Your task to perform on an android device: turn off notifications settings in the gmail app Image 0: 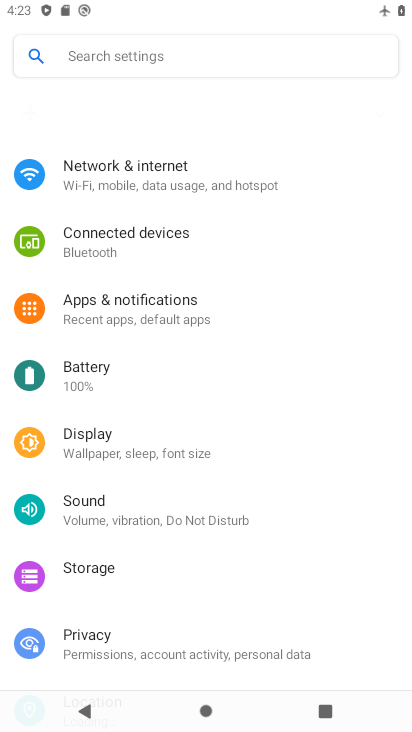
Step 0: drag from (248, 561) to (202, 300)
Your task to perform on an android device: turn off notifications settings in the gmail app Image 1: 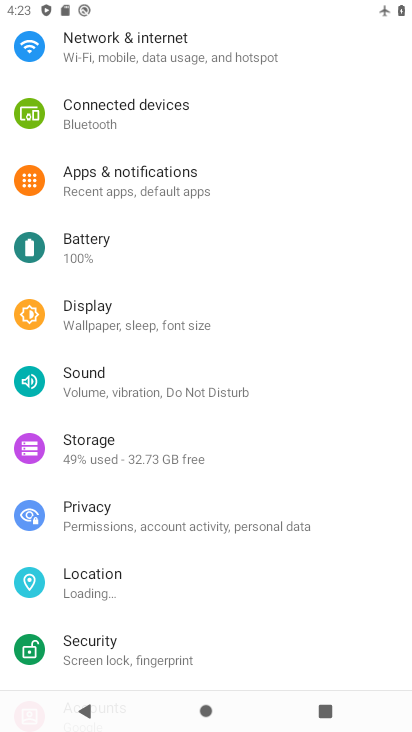
Step 1: press back button
Your task to perform on an android device: turn off notifications settings in the gmail app Image 2: 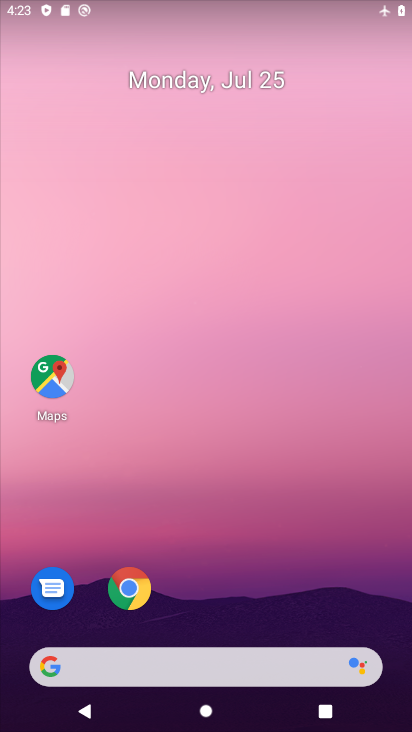
Step 2: drag from (116, 539) to (155, 166)
Your task to perform on an android device: turn off notifications settings in the gmail app Image 3: 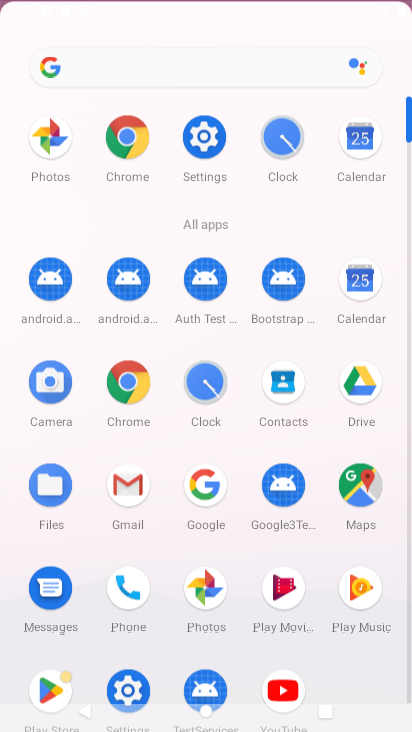
Step 3: drag from (204, 534) to (148, 98)
Your task to perform on an android device: turn off notifications settings in the gmail app Image 4: 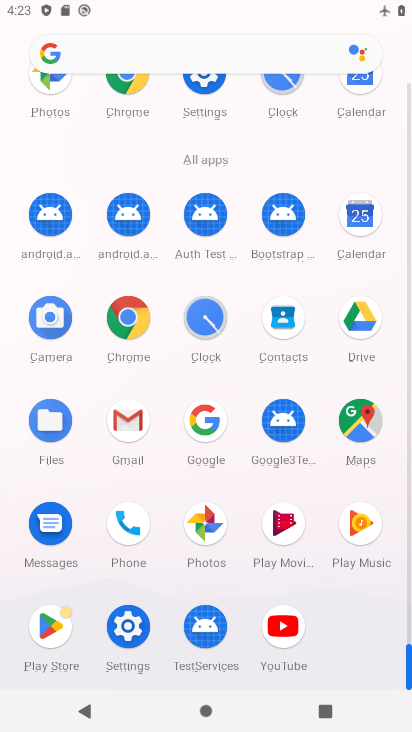
Step 4: click (113, 633)
Your task to perform on an android device: turn off notifications settings in the gmail app Image 5: 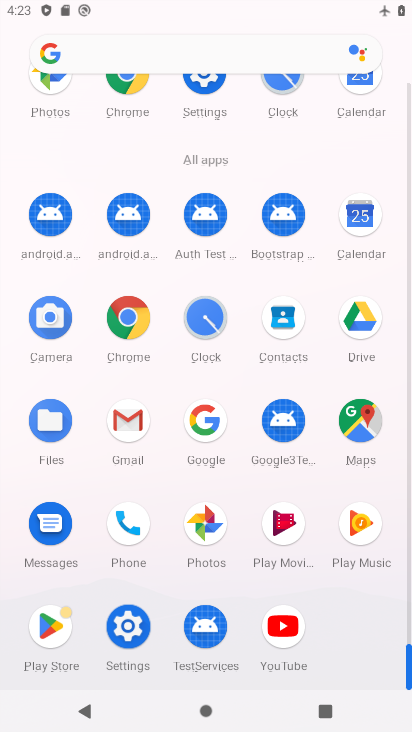
Step 5: click (122, 637)
Your task to perform on an android device: turn off notifications settings in the gmail app Image 6: 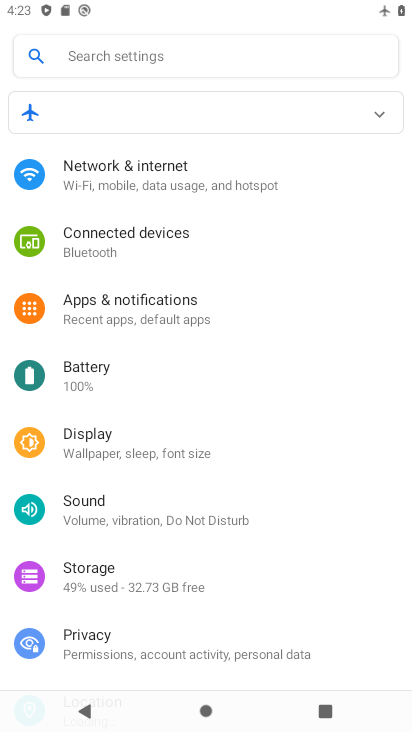
Step 6: click (136, 305)
Your task to perform on an android device: turn off notifications settings in the gmail app Image 7: 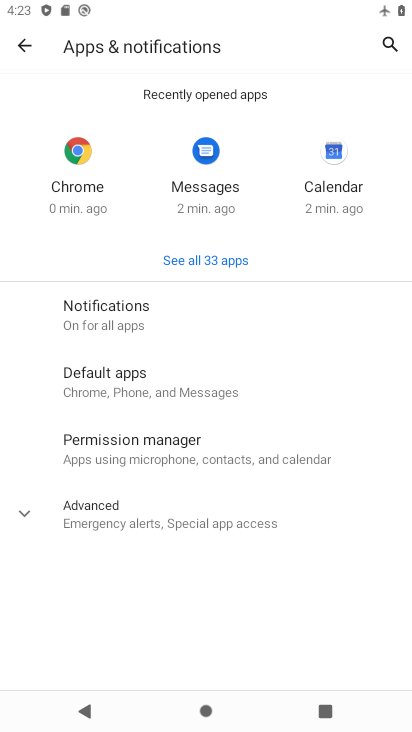
Step 7: click (119, 312)
Your task to perform on an android device: turn off notifications settings in the gmail app Image 8: 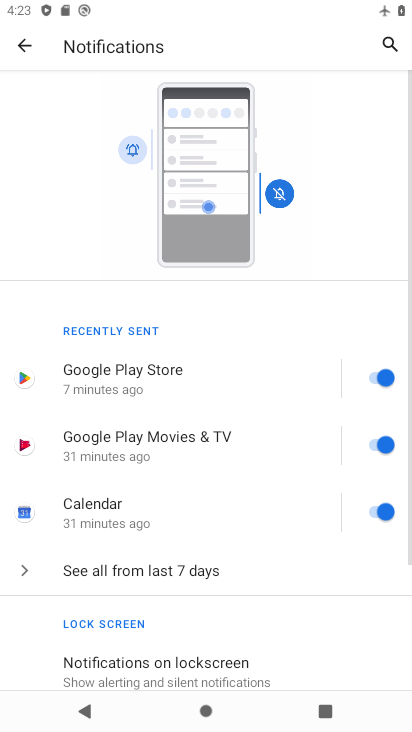
Step 8: drag from (158, 646) to (150, 353)
Your task to perform on an android device: turn off notifications settings in the gmail app Image 9: 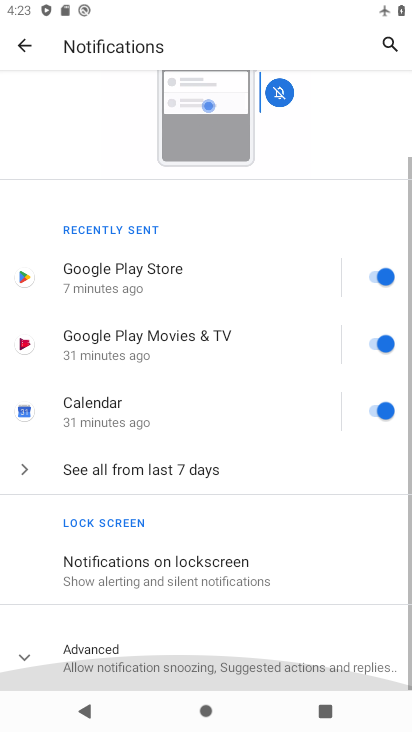
Step 9: drag from (165, 646) to (185, 384)
Your task to perform on an android device: turn off notifications settings in the gmail app Image 10: 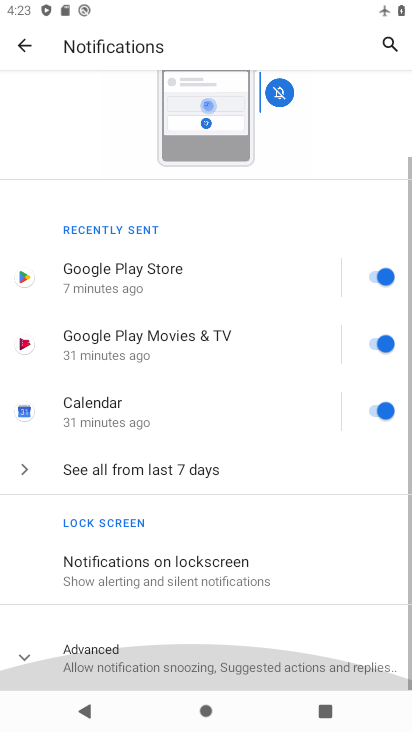
Step 10: drag from (237, 610) to (214, 257)
Your task to perform on an android device: turn off notifications settings in the gmail app Image 11: 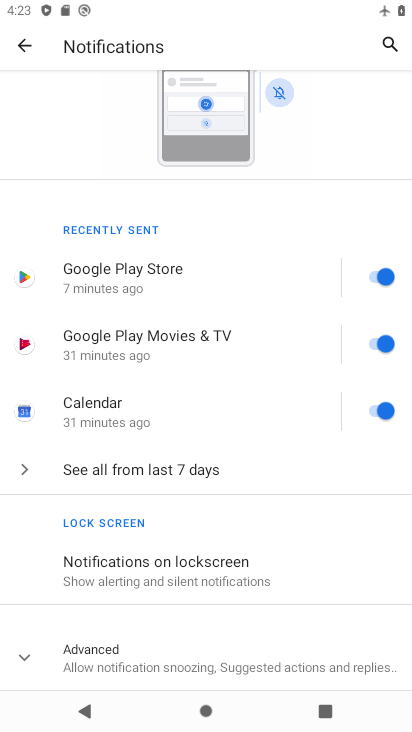
Step 11: click (81, 652)
Your task to perform on an android device: turn off notifications settings in the gmail app Image 12: 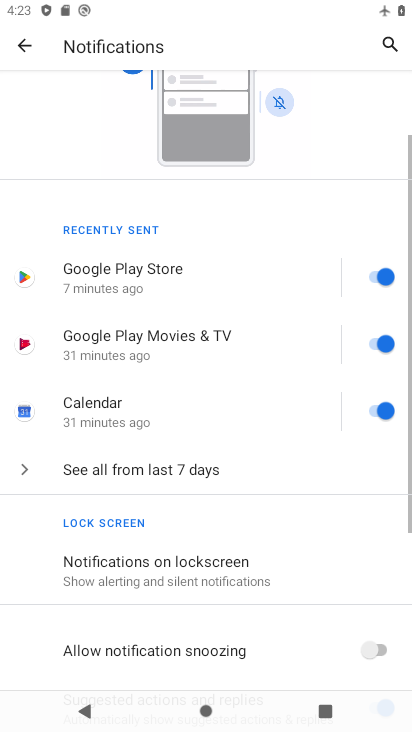
Step 12: drag from (139, 643) to (123, 342)
Your task to perform on an android device: turn off notifications settings in the gmail app Image 13: 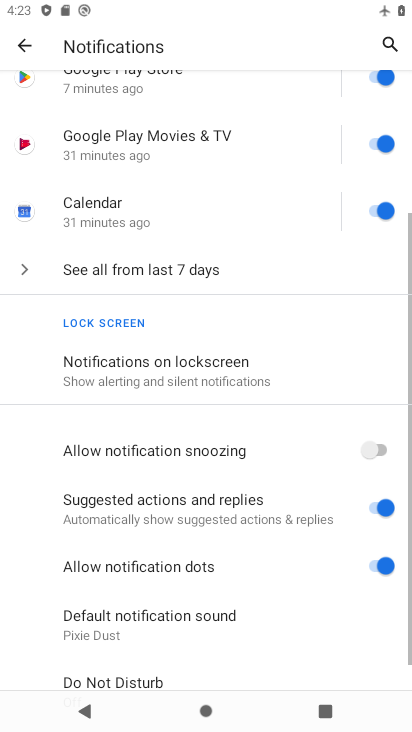
Step 13: drag from (209, 635) to (218, 317)
Your task to perform on an android device: turn off notifications settings in the gmail app Image 14: 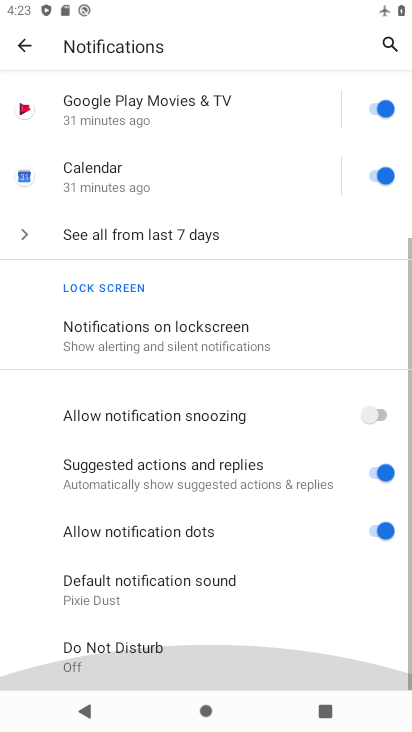
Step 14: drag from (232, 479) to (234, 203)
Your task to perform on an android device: turn off notifications settings in the gmail app Image 15: 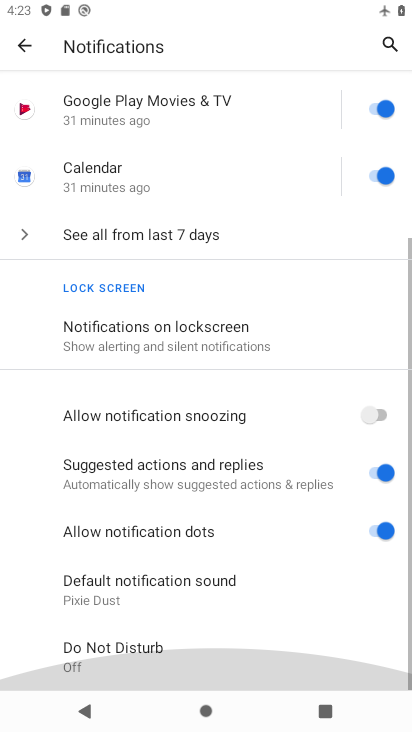
Step 15: drag from (242, 489) to (239, 181)
Your task to perform on an android device: turn off notifications settings in the gmail app Image 16: 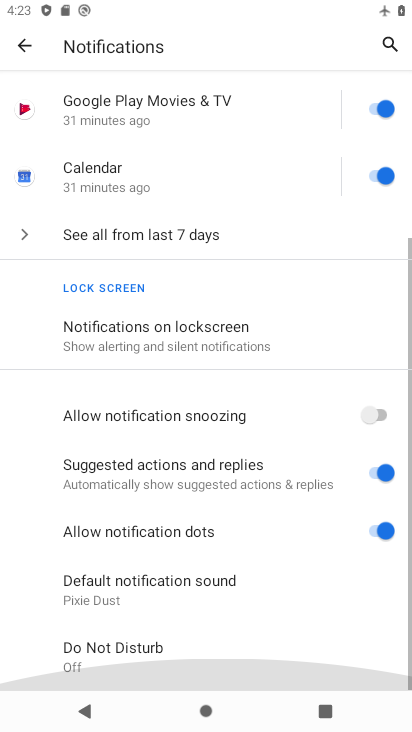
Step 16: drag from (247, 613) to (242, 202)
Your task to perform on an android device: turn off notifications settings in the gmail app Image 17: 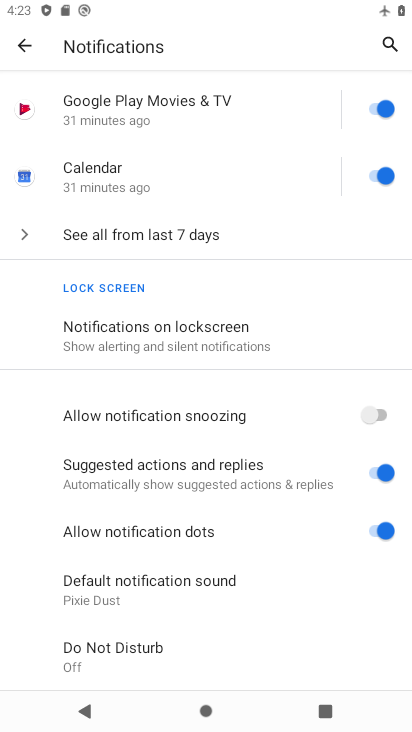
Step 17: click (25, 45)
Your task to perform on an android device: turn off notifications settings in the gmail app Image 18: 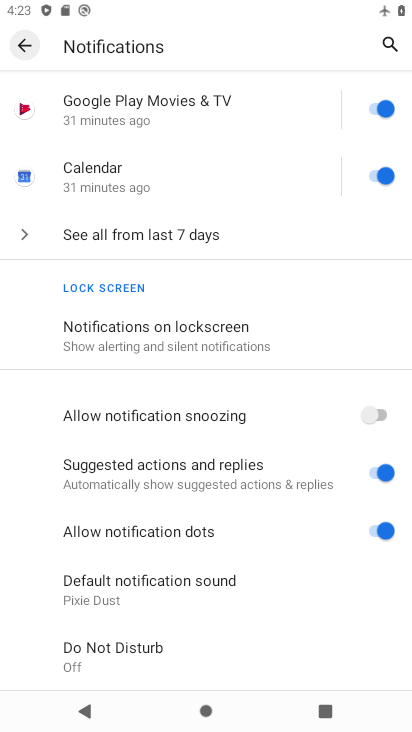
Step 18: click (23, 47)
Your task to perform on an android device: turn off notifications settings in the gmail app Image 19: 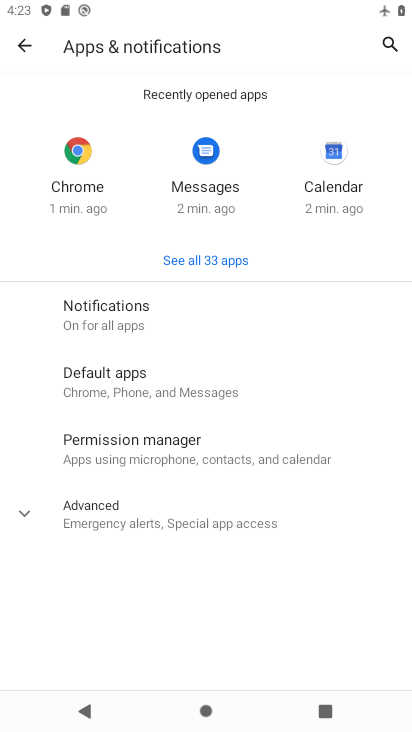
Step 19: click (29, 50)
Your task to perform on an android device: turn off notifications settings in the gmail app Image 20: 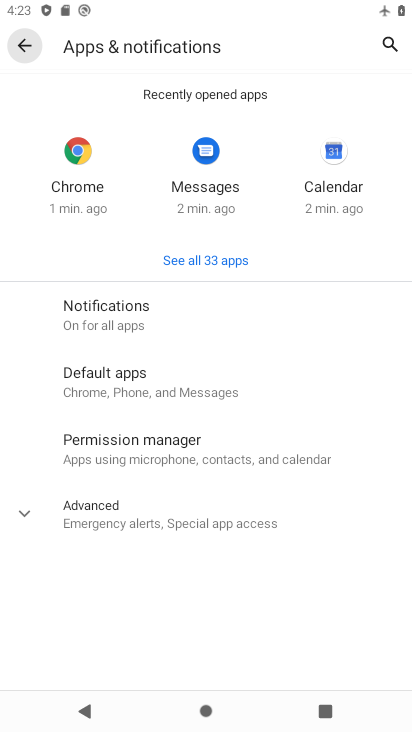
Step 20: click (27, 46)
Your task to perform on an android device: turn off notifications settings in the gmail app Image 21: 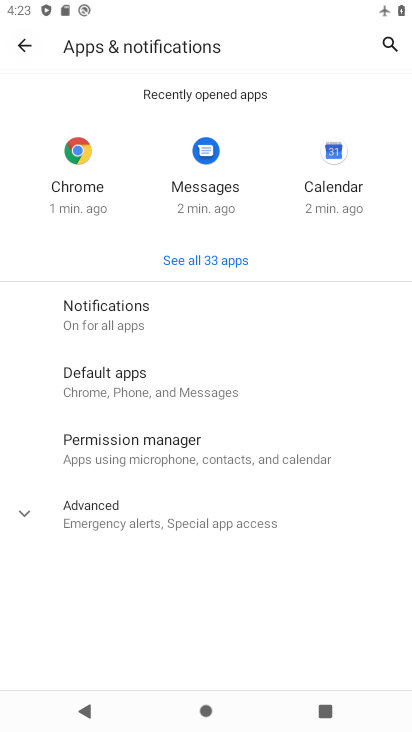
Step 21: click (36, 44)
Your task to perform on an android device: turn off notifications settings in the gmail app Image 22: 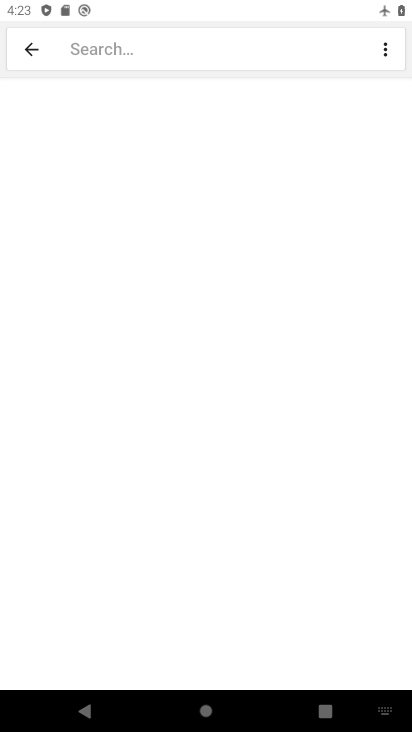
Step 22: click (37, 42)
Your task to perform on an android device: turn off notifications settings in the gmail app Image 23: 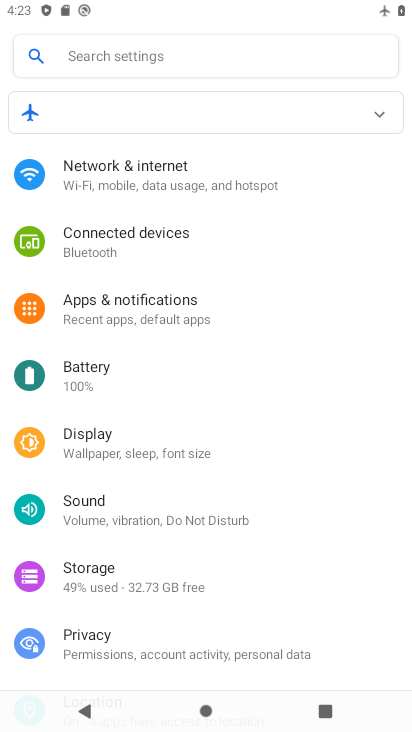
Step 23: press back button
Your task to perform on an android device: turn off notifications settings in the gmail app Image 24: 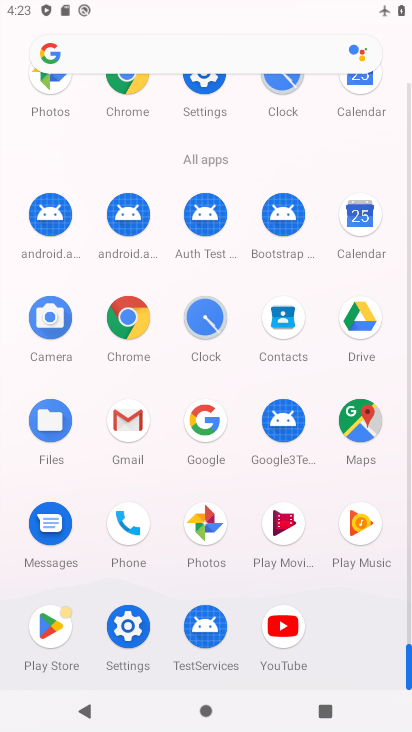
Step 24: drag from (140, 539) to (122, 242)
Your task to perform on an android device: turn off notifications settings in the gmail app Image 25: 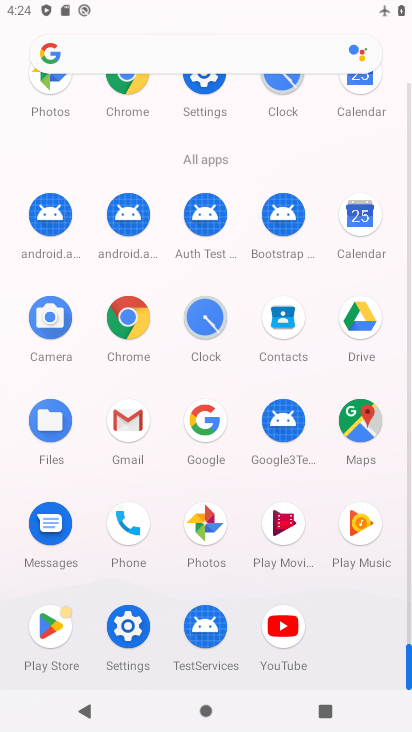
Step 25: drag from (190, 532) to (163, 253)
Your task to perform on an android device: turn off notifications settings in the gmail app Image 26: 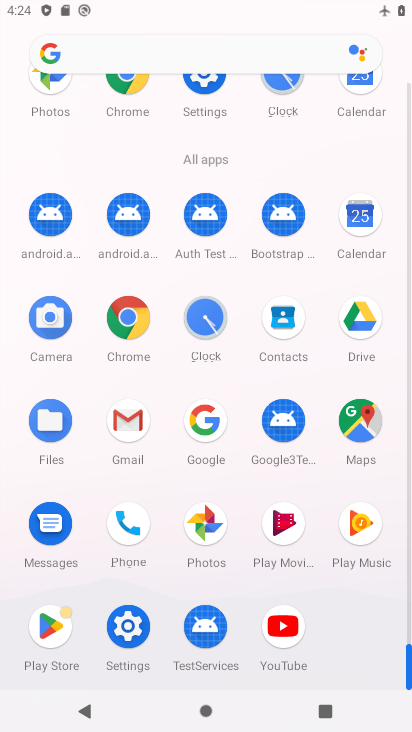
Step 26: click (127, 419)
Your task to perform on an android device: turn off notifications settings in the gmail app Image 27: 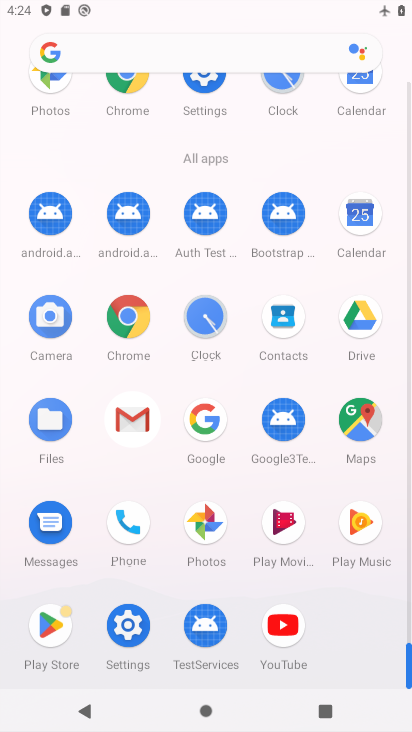
Step 27: click (126, 420)
Your task to perform on an android device: turn off notifications settings in the gmail app Image 28: 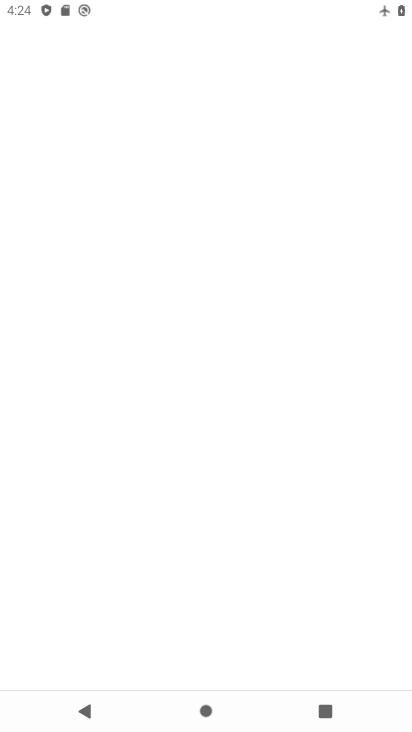
Step 28: click (128, 420)
Your task to perform on an android device: turn off notifications settings in the gmail app Image 29: 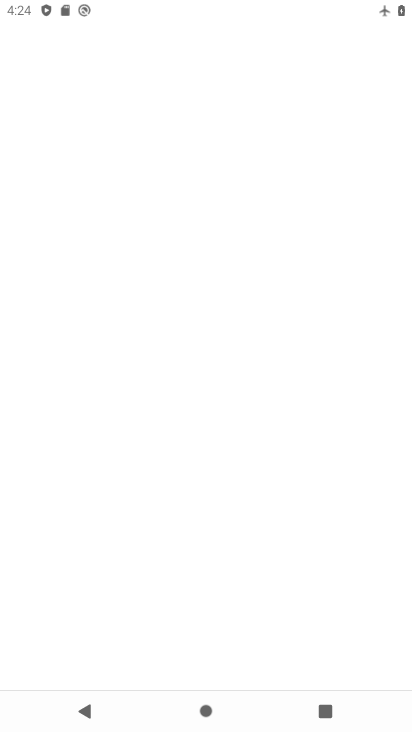
Step 29: click (128, 420)
Your task to perform on an android device: turn off notifications settings in the gmail app Image 30: 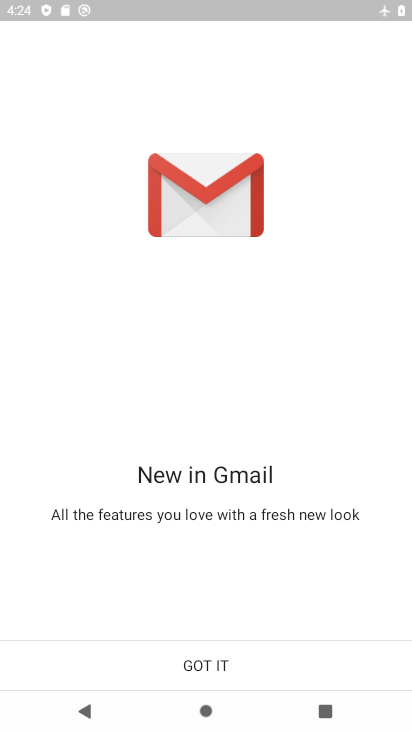
Step 30: click (197, 658)
Your task to perform on an android device: turn off notifications settings in the gmail app Image 31: 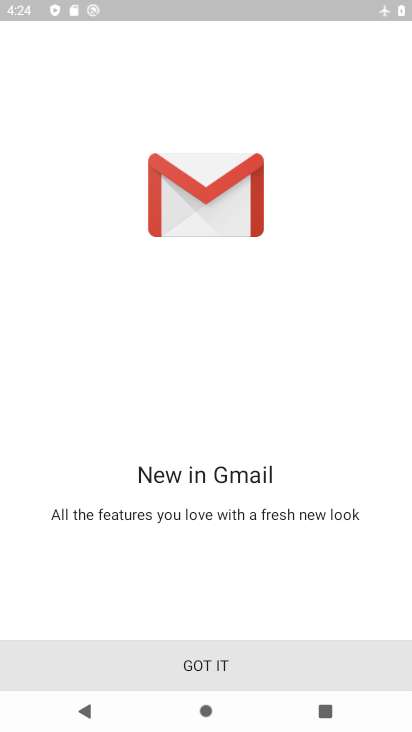
Step 31: click (202, 656)
Your task to perform on an android device: turn off notifications settings in the gmail app Image 32: 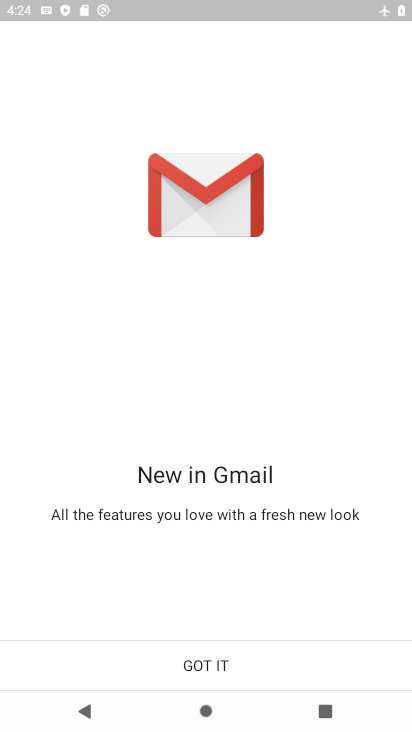
Step 32: click (202, 655)
Your task to perform on an android device: turn off notifications settings in the gmail app Image 33: 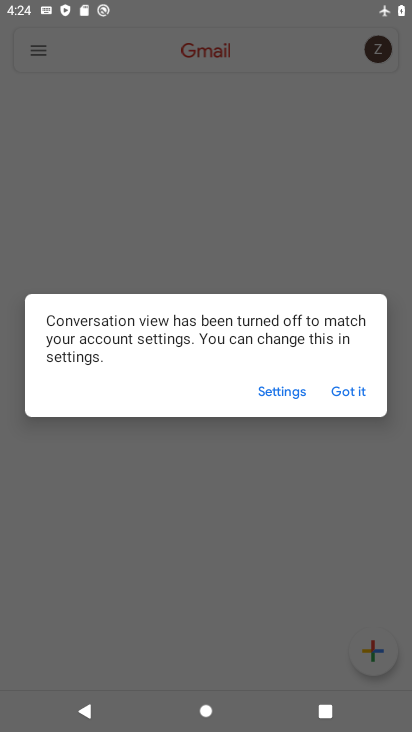
Step 33: click (285, 381)
Your task to perform on an android device: turn off notifications settings in the gmail app Image 34: 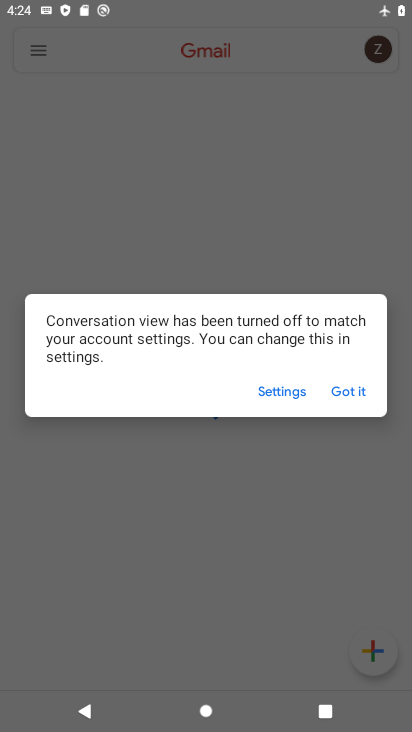
Step 34: click (284, 388)
Your task to perform on an android device: turn off notifications settings in the gmail app Image 35: 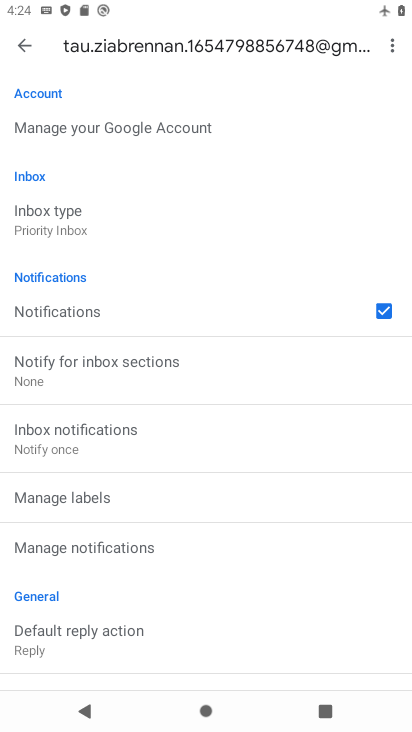
Step 35: click (383, 311)
Your task to perform on an android device: turn off notifications settings in the gmail app Image 36: 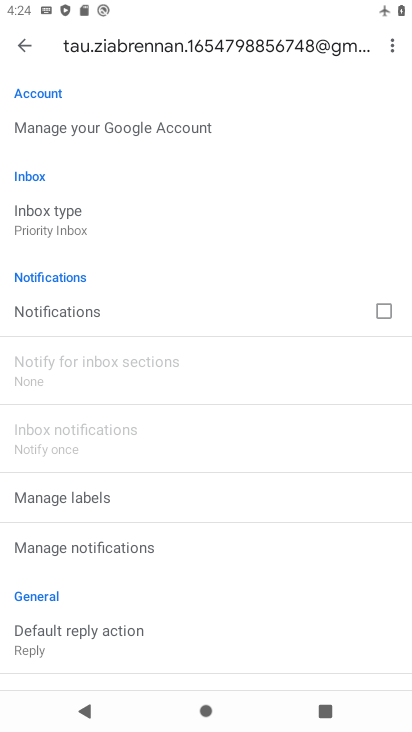
Step 36: task complete